Your task to perform on an android device: turn smart compose on in the gmail app Image 0: 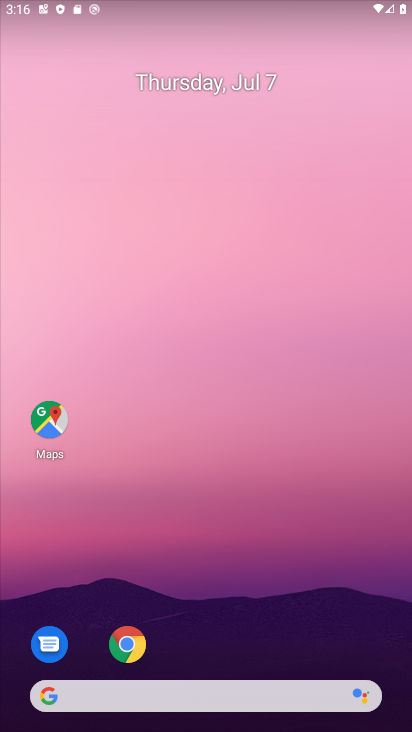
Step 0: drag from (204, 646) to (214, 84)
Your task to perform on an android device: turn smart compose on in the gmail app Image 1: 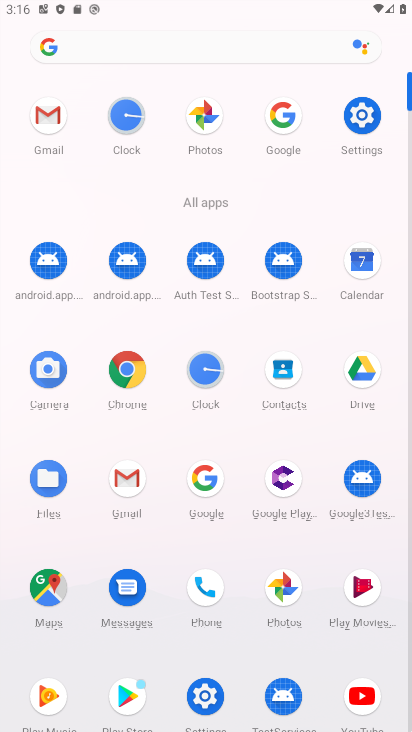
Step 1: click (124, 488)
Your task to perform on an android device: turn smart compose on in the gmail app Image 2: 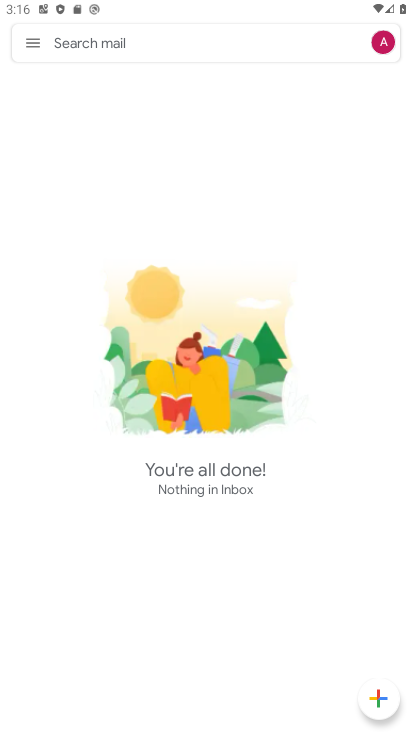
Step 2: click (15, 22)
Your task to perform on an android device: turn smart compose on in the gmail app Image 3: 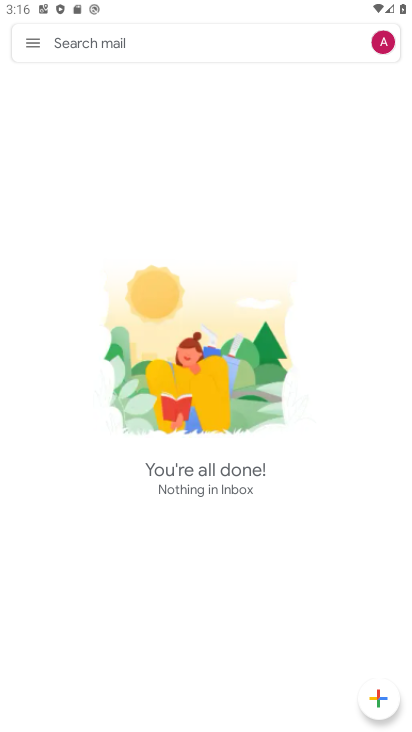
Step 3: click (22, 37)
Your task to perform on an android device: turn smart compose on in the gmail app Image 4: 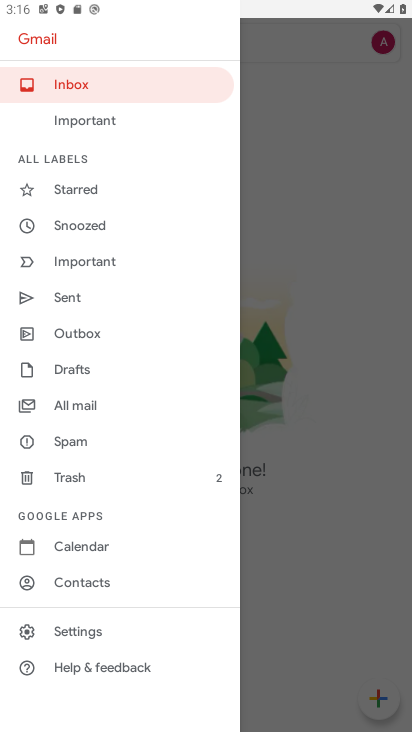
Step 4: click (56, 621)
Your task to perform on an android device: turn smart compose on in the gmail app Image 5: 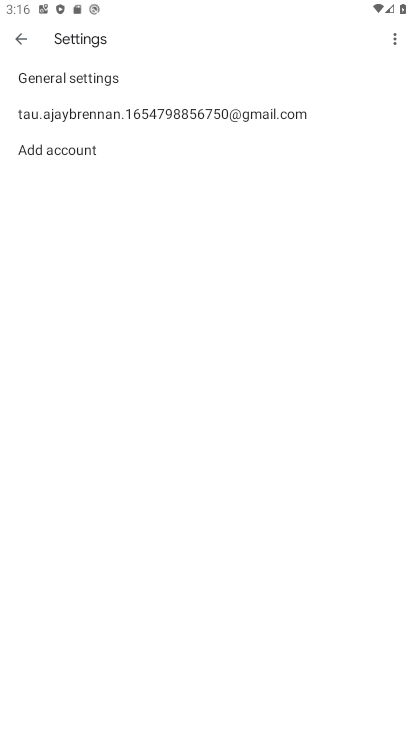
Step 5: drag from (57, 622) to (63, 298)
Your task to perform on an android device: turn smart compose on in the gmail app Image 6: 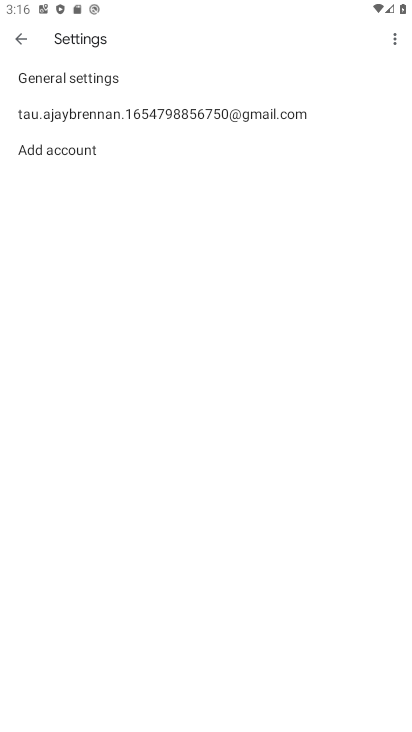
Step 6: click (67, 125)
Your task to perform on an android device: turn smart compose on in the gmail app Image 7: 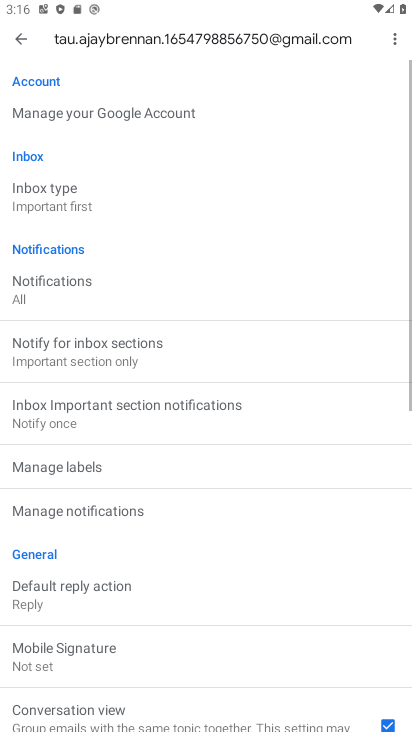
Step 7: task complete